Your task to perform on an android device: refresh tabs in the chrome app Image 0: 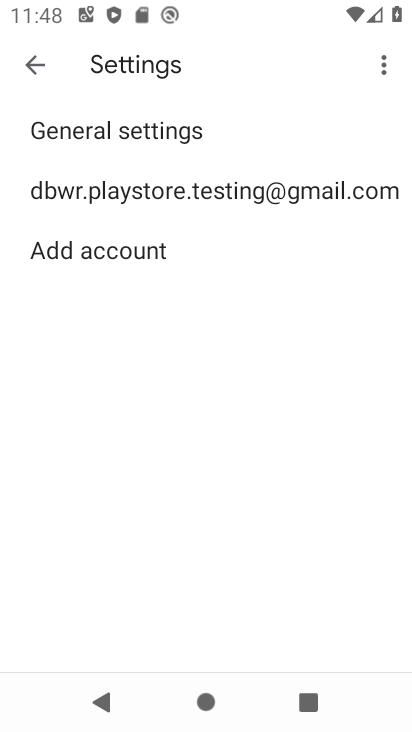
Step 0: press home button
Your task to perform on an android device: refresh tabs in the chrome app Image 1: 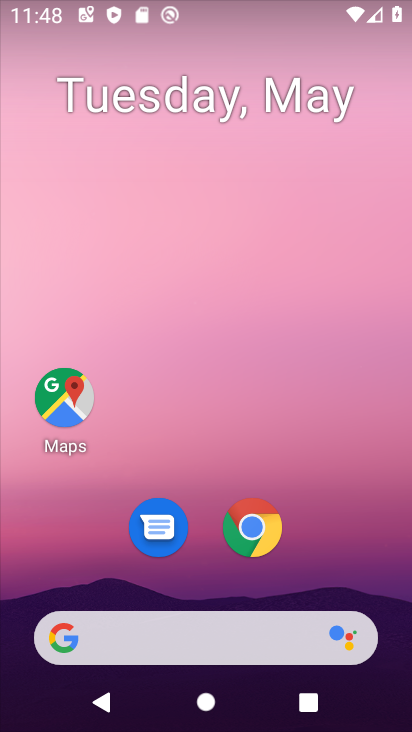
Step 1: drag from (345, 638) to (318, 93)
Your task to perform on an android device: refresh tabs in the chrome app Image 2: 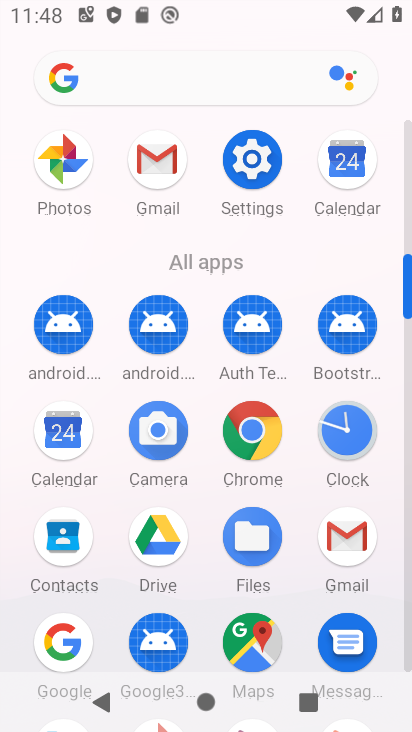
Step 2: click (244, 433)
Your task to perform on an android device: refresh tabs in the chrome app Image 3: 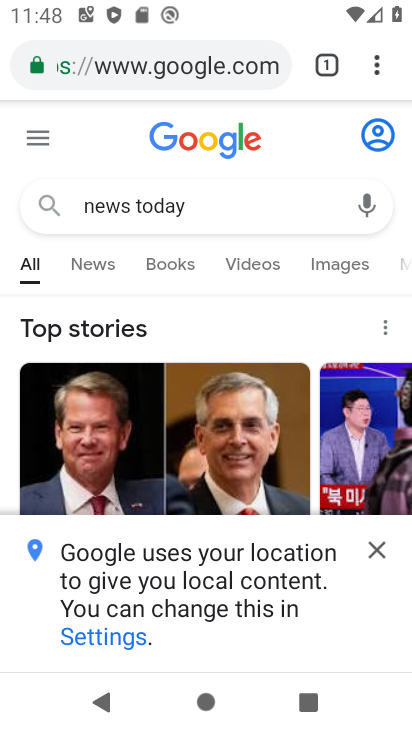
Step 3: click (369, 69)
Your task to perform on an android device: refresh tabs in the chrome app Image 4: 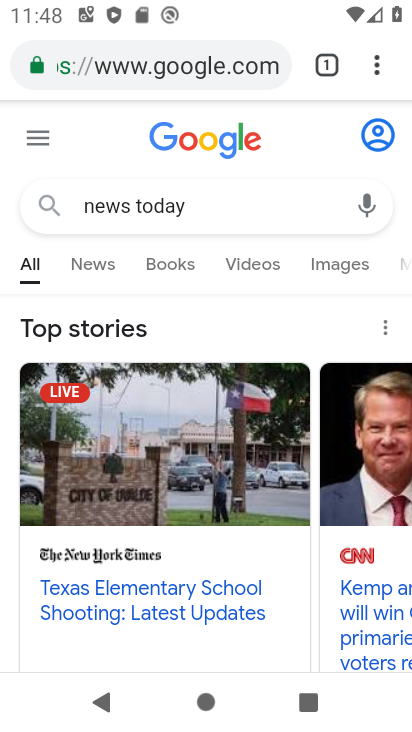
Step 4: task complete